Your task to perform on an android device: turn on wifi Image 0: 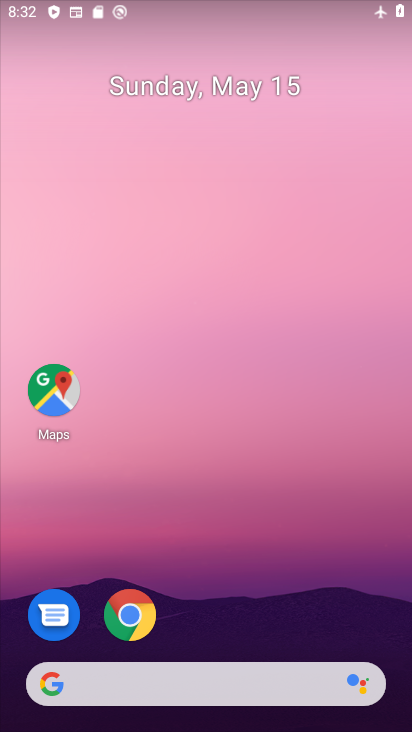
Step 0: drag from (188, 642) to (203, 128)
Your task to perform on an android device: turn on wifi Image 1: 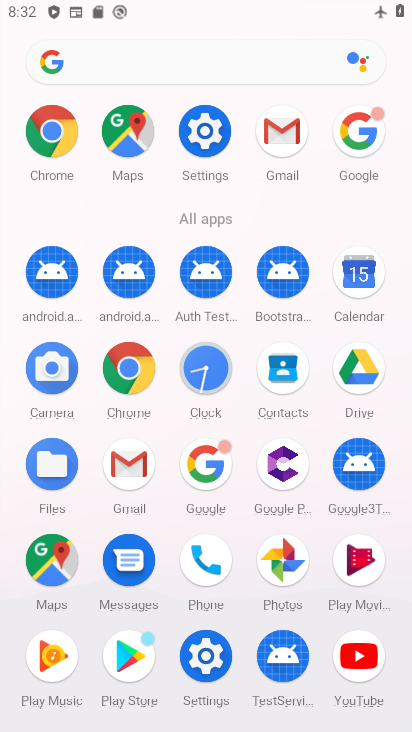
Step 1: click (210, 120)
Your task to perform on an android device: turn on wifi Image 2: 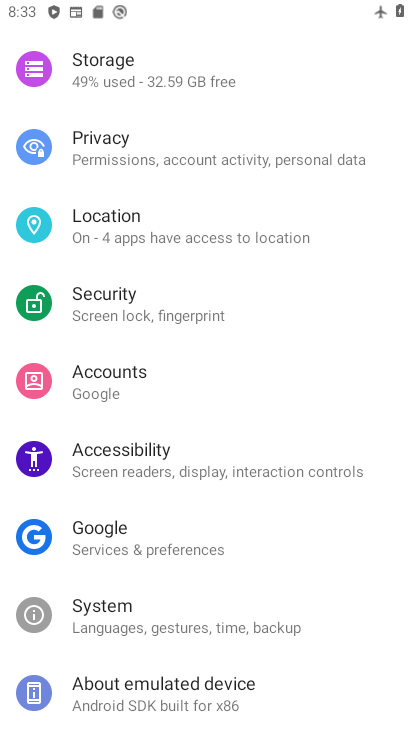
Step 2: drag from (93, 88) to (111, 641)
Your task to perform on an android device: turn on wifi Image 3: 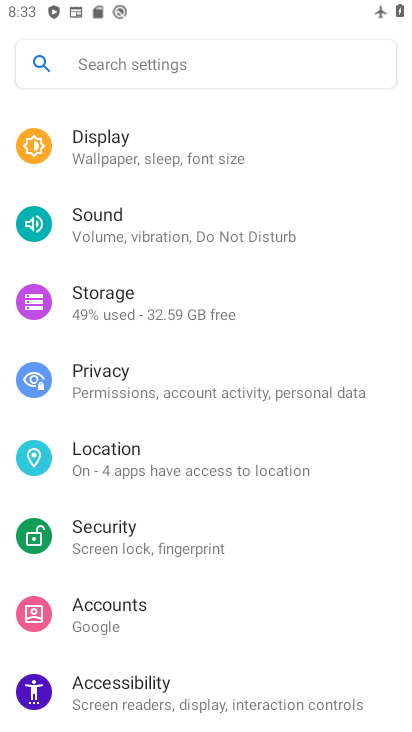
Step 3: drag from (134, 121) to (116, 649)
Your task to perform on an android device: turn on wifi Image 4: 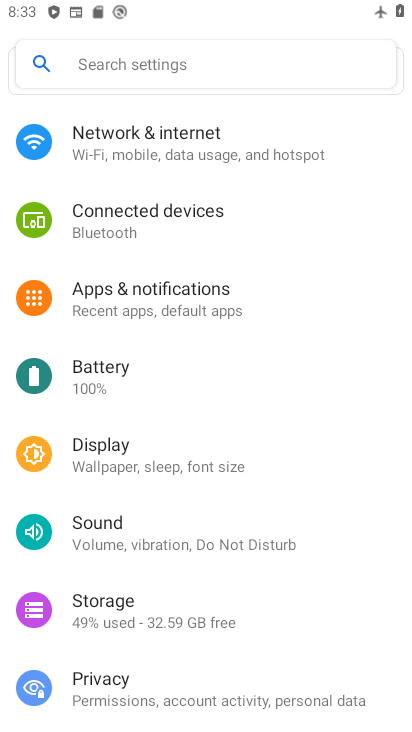
Step 4: click (133, 142)
Your task to perform on an android device: turn on wifi Image 5: 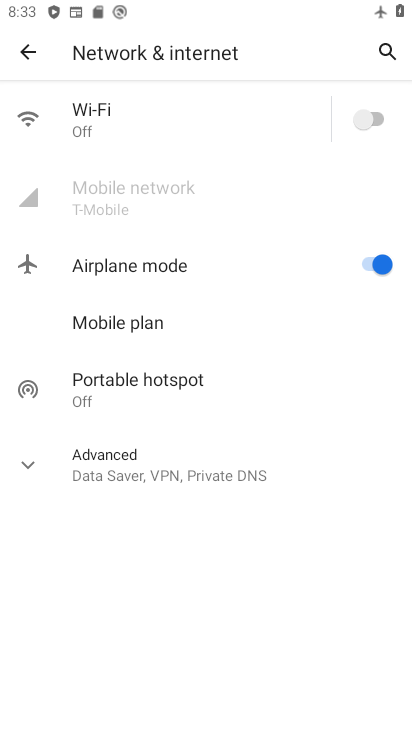
Step 5: click (376, 113)
Your task to perform on an android device: turn on wifi Image 6: 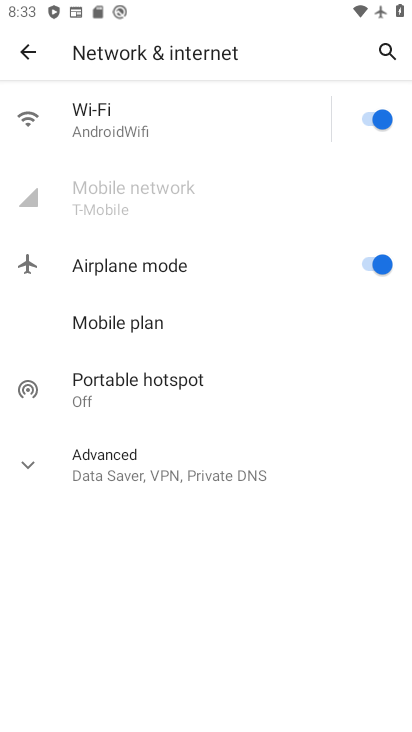
Step 6: task complete